Your task to perform on an android device: change the upload size in google photos Image 0: 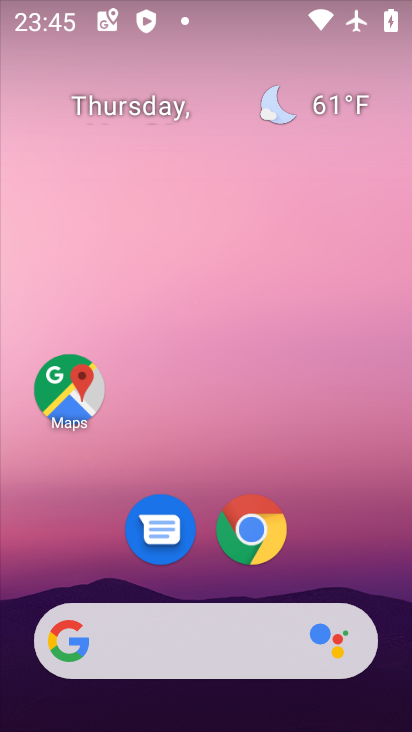
Step 0: drag from (353, 554) to (345, 85)
Your task to perform on an android device: change the upload size in google photos Image 1: 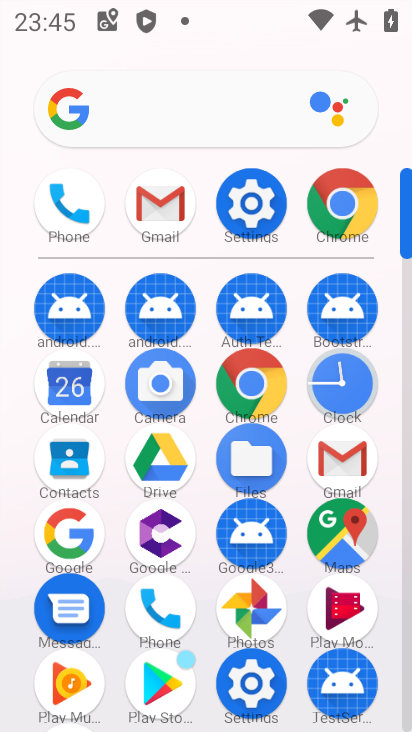
Step 1: click (260, 608)
Your task to perform on an android device: change the upload size in google photos Image 2: 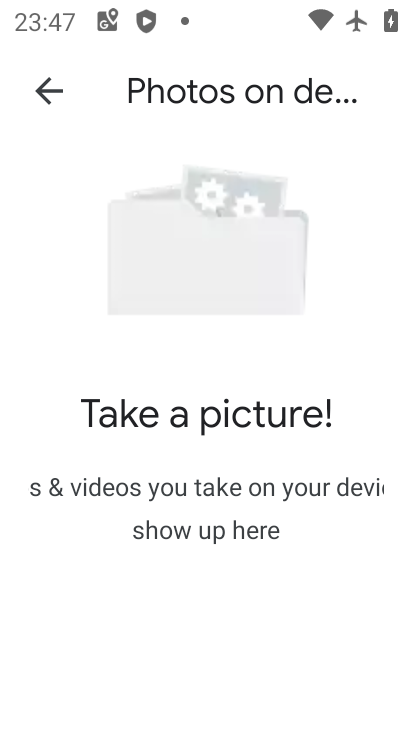
Step 2: click (30, 89)
Your task to perform on an android device: change the upload size in google photos Image 3: 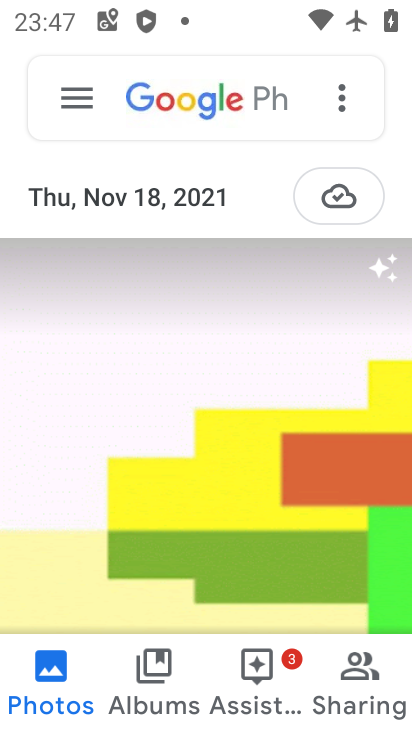
Step 3: click (52, 88)
Your task to perform on an android device: change the upload size in google photos Image 4: 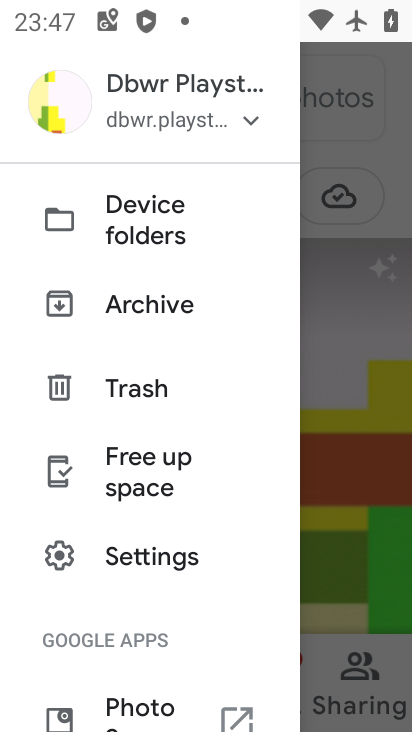
Step 4: click (111, 551)
Your task to perform on an android device: change the upload size in google photos Image 5: 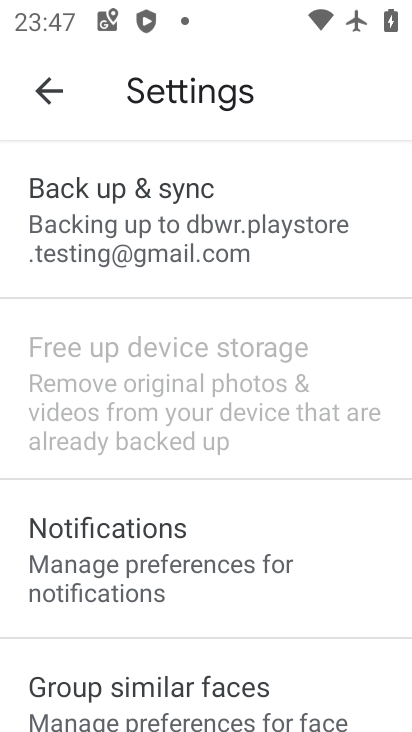
Step 5: drag from (141, 575) to (148, 458)
Your task to perform on an android device: change the upload size in google photos Image 6: 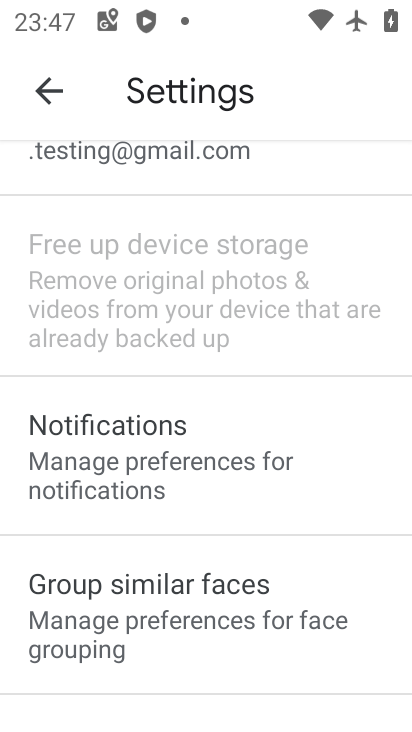
Step 6: click (196, 151)
Your task to perform on an android device: change the upload size in google photos Image 7: 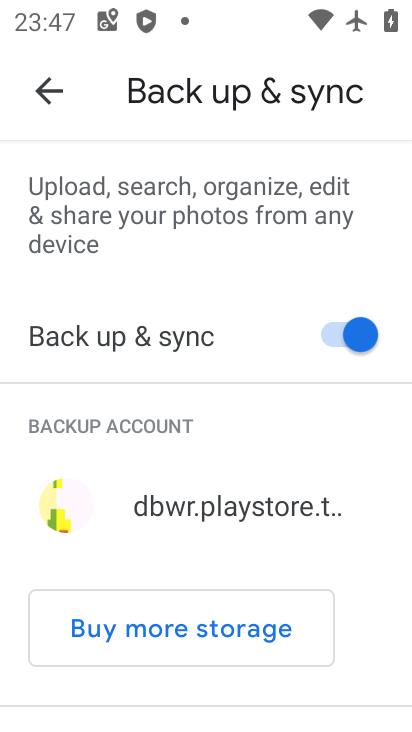
Step 7: drag from (262, 449) to (264, 194)
Your task to perform on an android device: change the upload size in google photos Image 8: 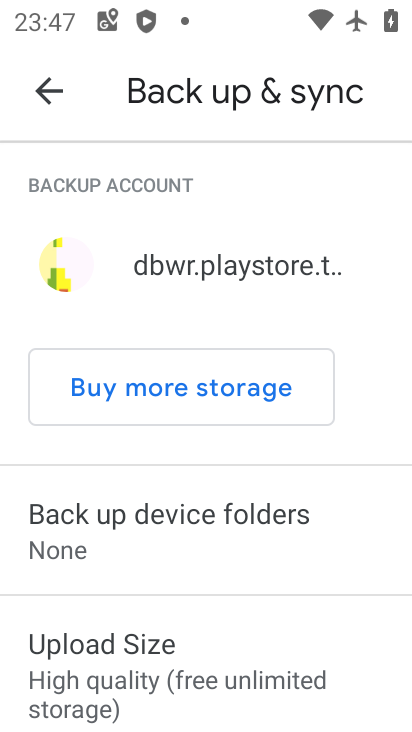
Step 8: click (264, 194)
Your task to perform on an android device: change the upload size in google photos Image 9: 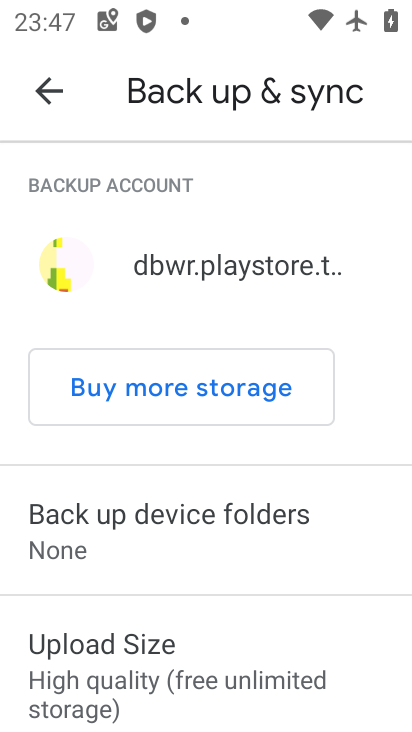
Step 9: drag from (229, 669) to (229, 536)
Your task to perform on an android device: change the upload size in google photos Image 10: 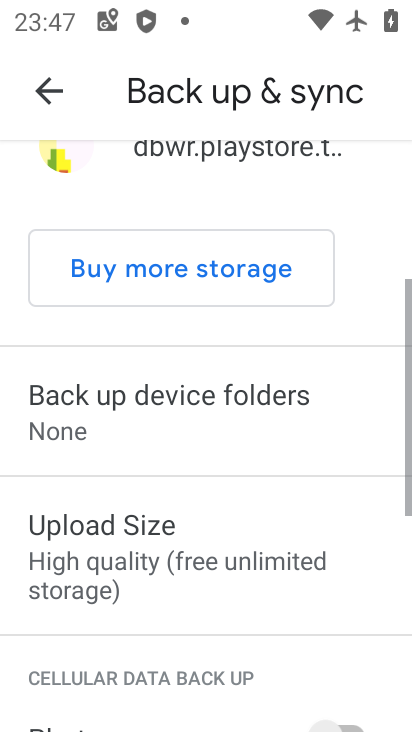
Step 10: drag from (229, 530) to (233, 316)
Your task to perform on an android device: change the upload size in google photos Image 11: 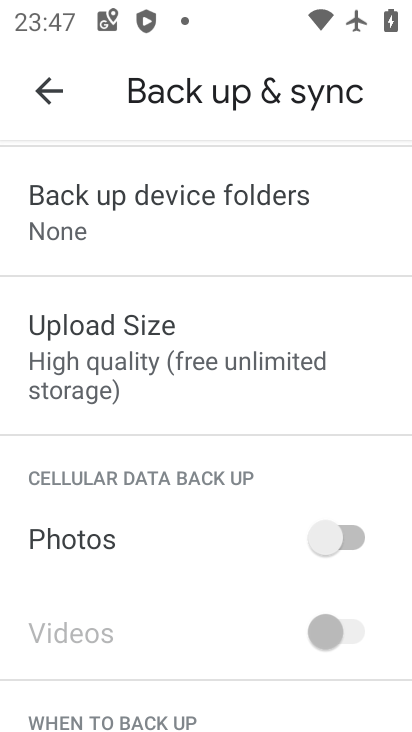
Step 11: click (224, 384)
Your task to perform on an android device: change the upload size in google photos Image 12: 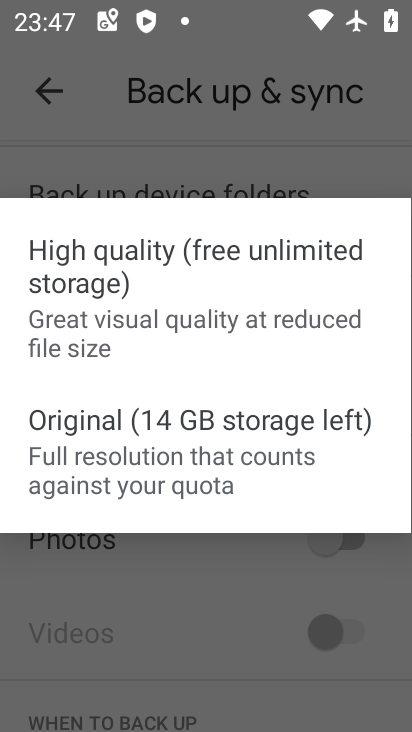
Step 12: task complete